Your task to perform on an android device: Open the web browser Image 0: 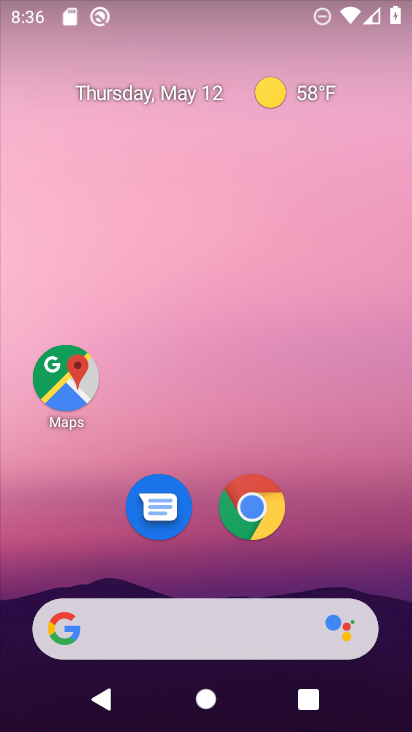
Step 0: drag from (213, 556) to (202, 475)
Your task to perform on an android device: Open the web browser Image 1: 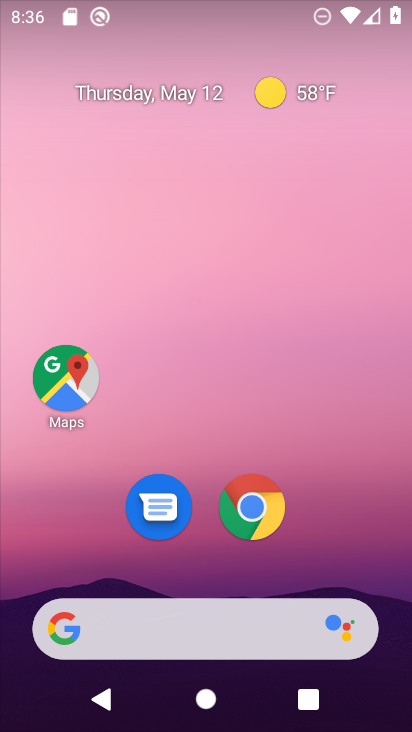
Step 1: click (229, 497)
Your task to perform on an android device: Open the web browser Image 2: 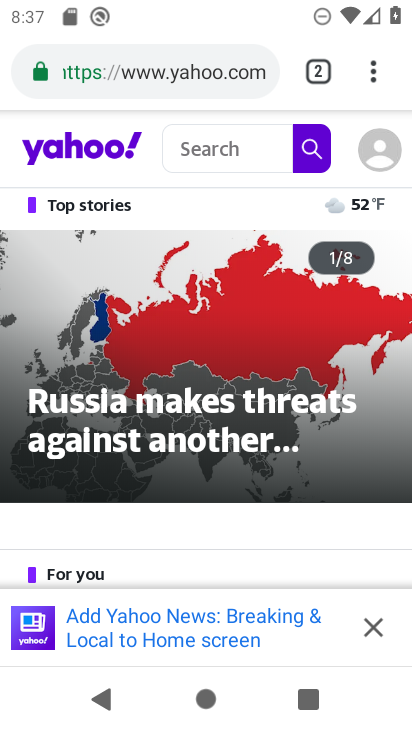
Step 2: task complete